Your task to perform on an android device: Open calendar and show me the fourth week of next month Image 0: 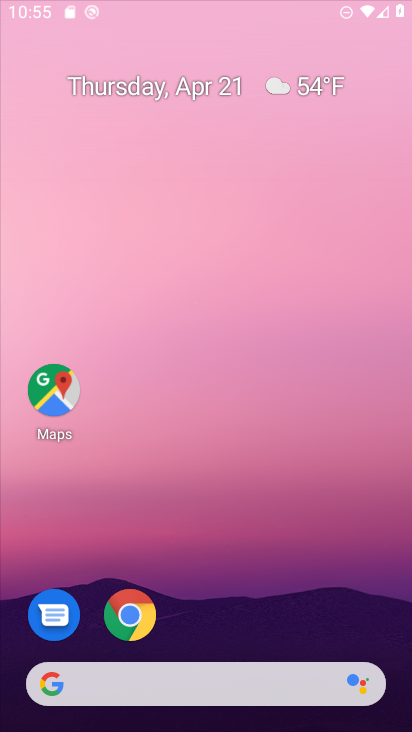
Step 0: drag from (335, 130) to (338, 67)
Your task to perform on an android device: Open calendar and show me the fourth week of next month Image 1: 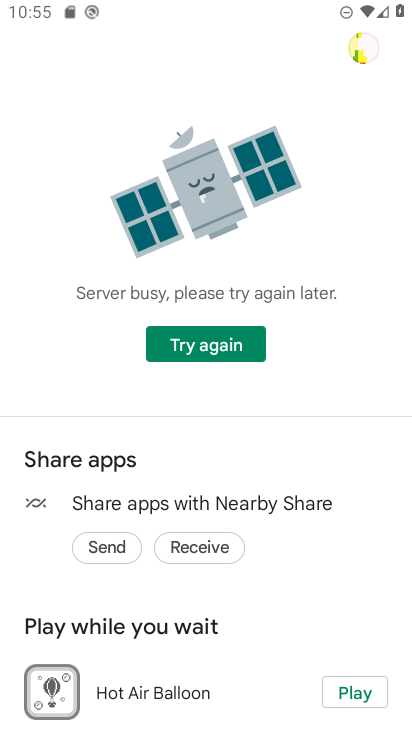
Step 1: press home button
Your task to perform on an android device: Open calendar and show me the fourth week of next month Image 2: 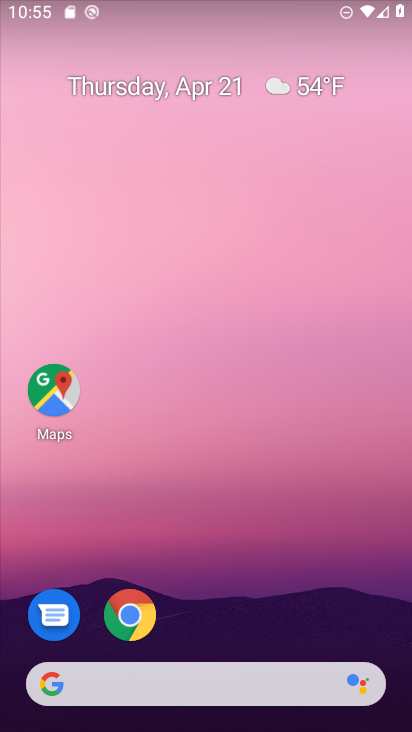
Step 2: drag from (235, 592) to (241, 96)
Your task to perform on an android device: Open calendar and show me the fourth week of next month Image 3: 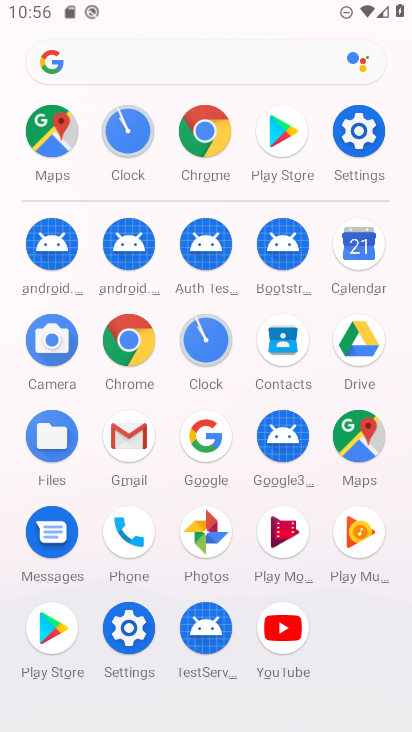
Step 3: click (356, 239)
Your task to perform on an android device: Open calendar and show me the fourth week of next month Image 4: 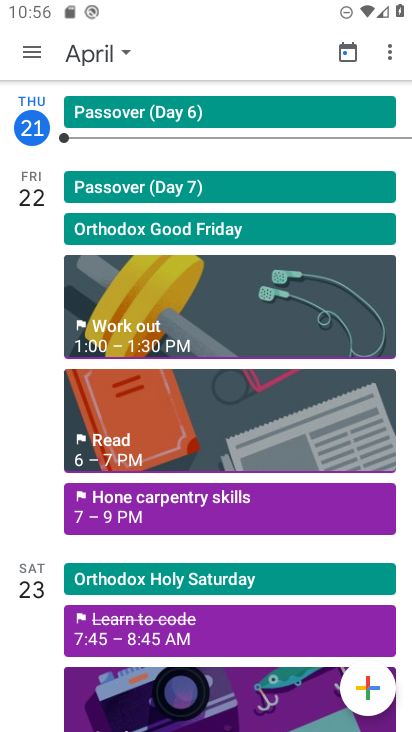
Step 4: click (76, 55)
Your task to perform on an android device: Open calendar and show me the fourth week of next month Image 5: 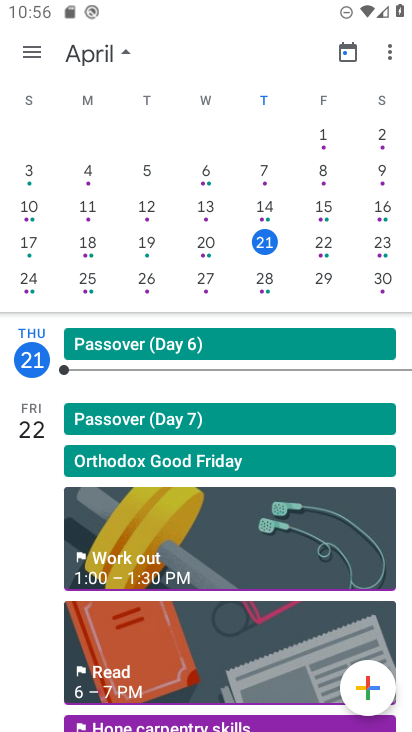
Step 5: drag from (368, 269) to (3, 236)
Your task to perform on an android device: Open calendar and show me the fourth week of next month Image 6: 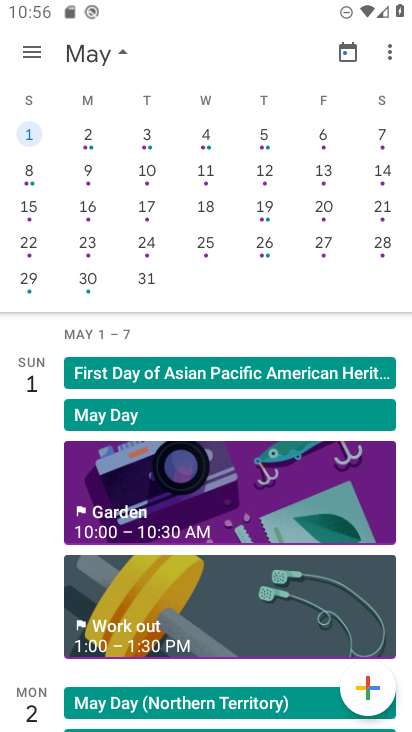
Step 6: click (35, 240)
Your task to perform on an android device: Open calendar and show me the fourth week of next month Image 7: 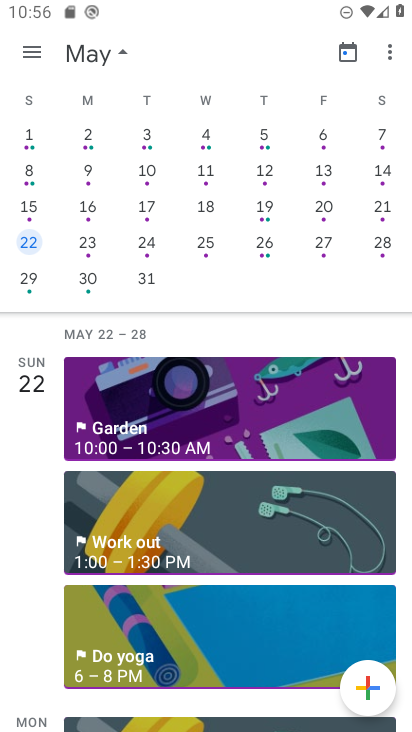
Step 7: task complete